Your task to perform on an android device: Go to Amazon Image 0: 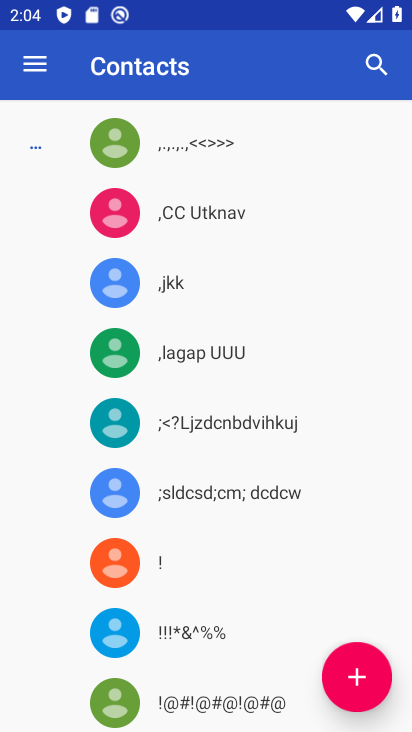
Step 0: press home button
Your task to perform on an android device: Go to Amazon Image 1: 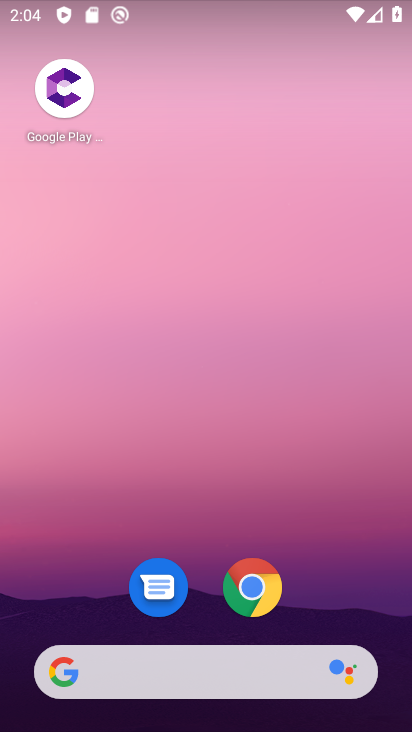
Step 1: click (264, 588)
Your task to perform on an android device: Go to Amazon Image 2: 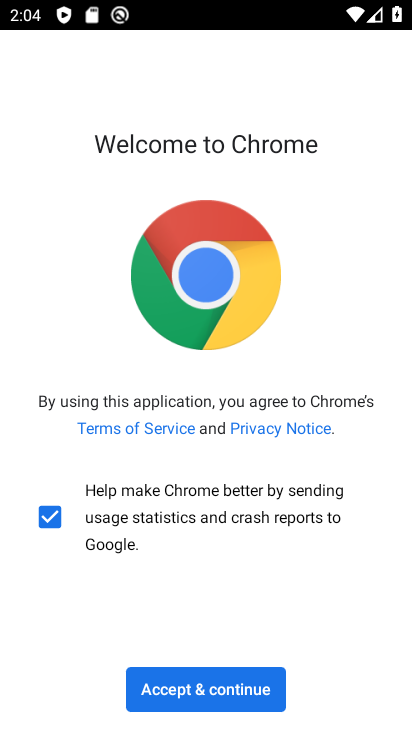
Step 2: click (229, 669)
Your task to perform on an android device: Go to Amazon Image 3: 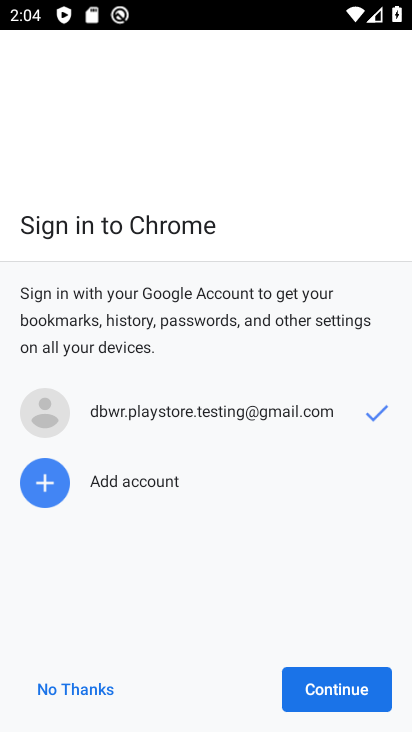
Step 3: click (86, 688)
Your task to perform on an android device: Go to Amazon Image 4: 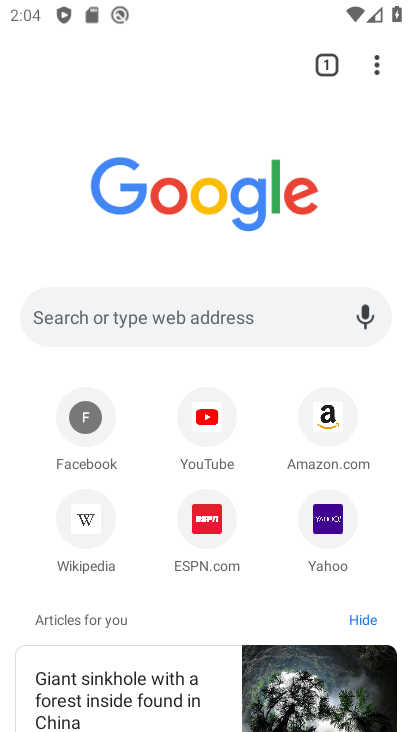
Step 4: click (318, 418)
Your task to perform on an android device: Go to Amazon Image 5: 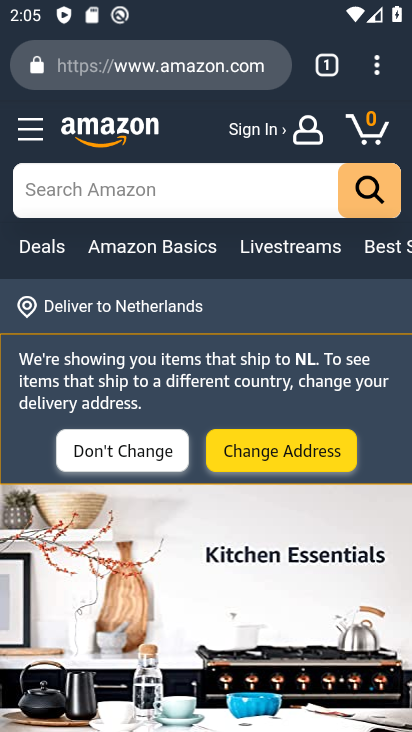
Step 5: task complete